Your task to perform on an android device: set the stopwatch Image 0: 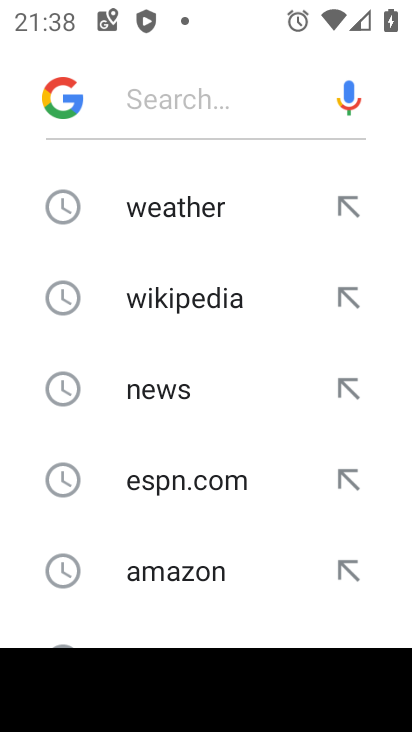
Step 0: press home button
Your task to perform on an android device: set the stopwatch Image 1: 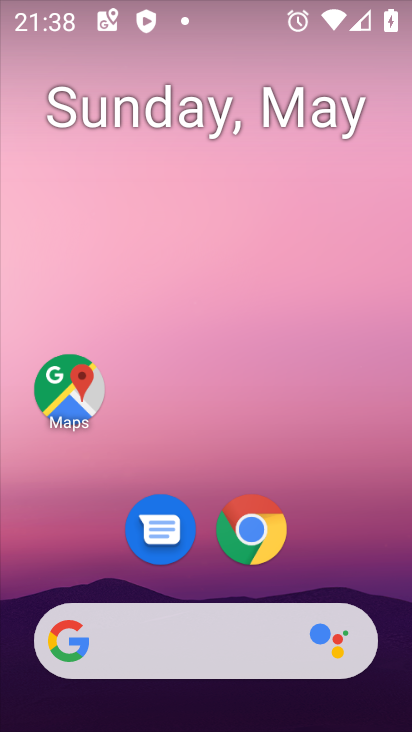
Step 1: drag from (361, 578) to (275, 1)
Your task to perform on an android device: set the stopwatch Image 2: 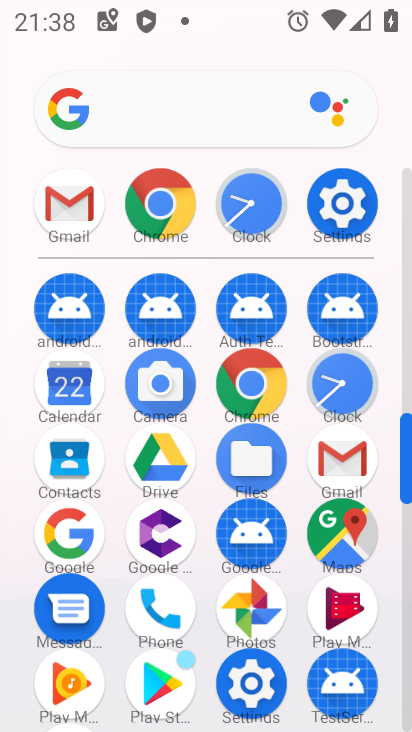
Step 2: click (253, 215)
Your task to perform on an android device: set the stopwatch Image 3: 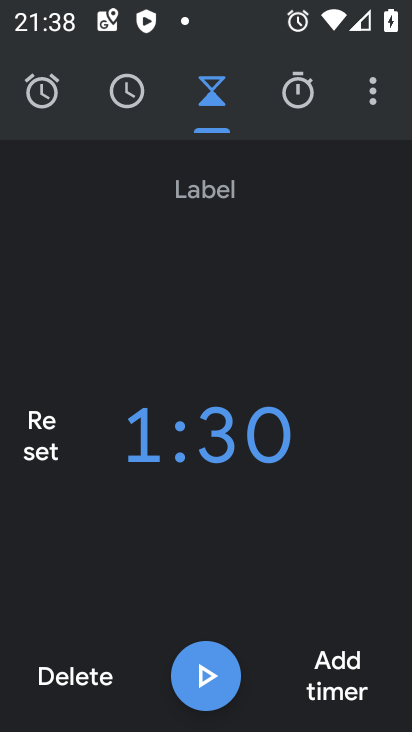
Step 3: click (294, 98)
Your task to perform on an android device: set the stopwatch Image 4: 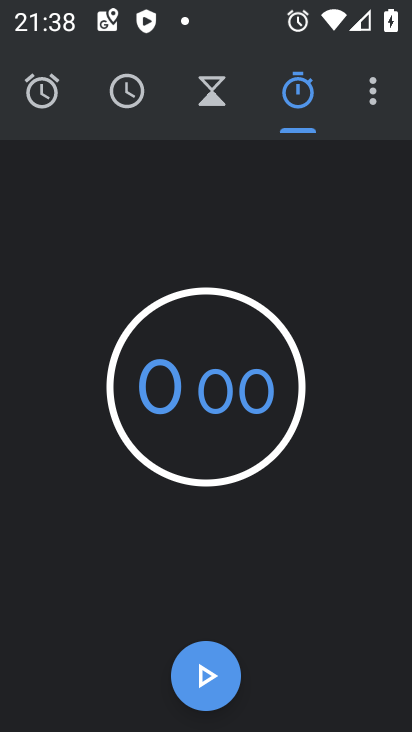
Step 4: click (202, 675)
Your task to perform on an android device: set the stopwatch Image 5: 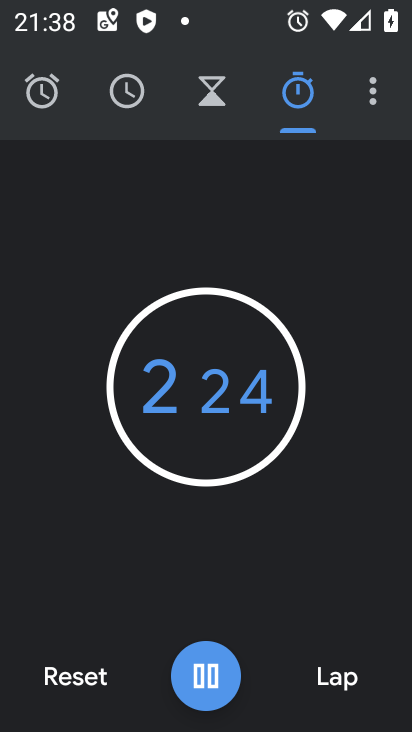
Step 5: click (202, 675)
Your task to perform on an android device: set the stopwatch Image 6: 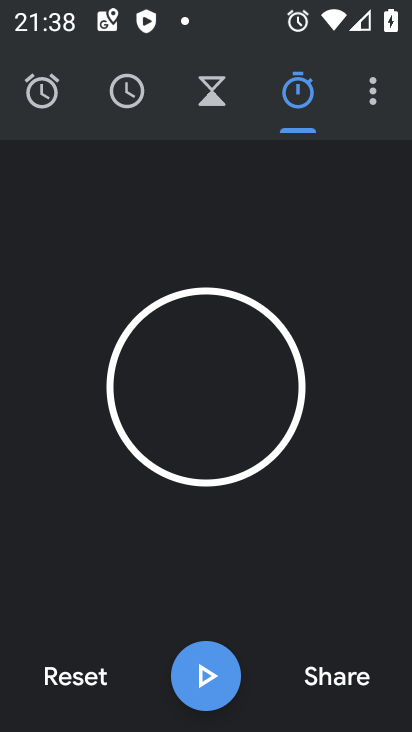
Step 6: task complete